Your task to perform on an android device: Show the shopping cart on bestbuy. Search for "sony triple a" on bestbuy, select the first entry, add it to the cart, then select checkout. Image 0: 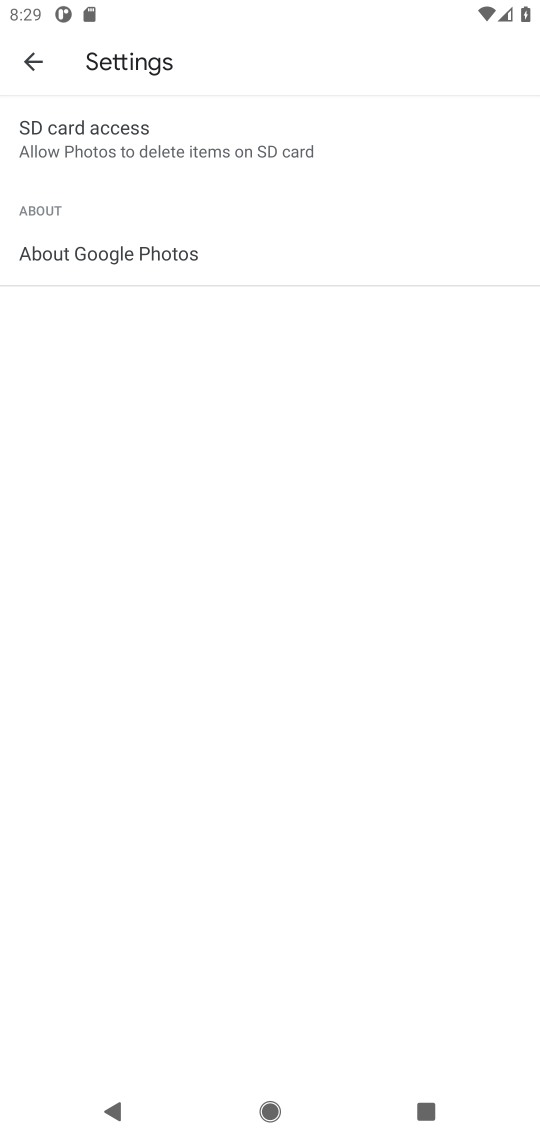
Step 0: press home button
Your task to perform on an android device: Show the shopping cart on bestbuy. Search for "sony triple a" on bestbuy, select the first entry, add it to the cart, then select checkout. Image 1: 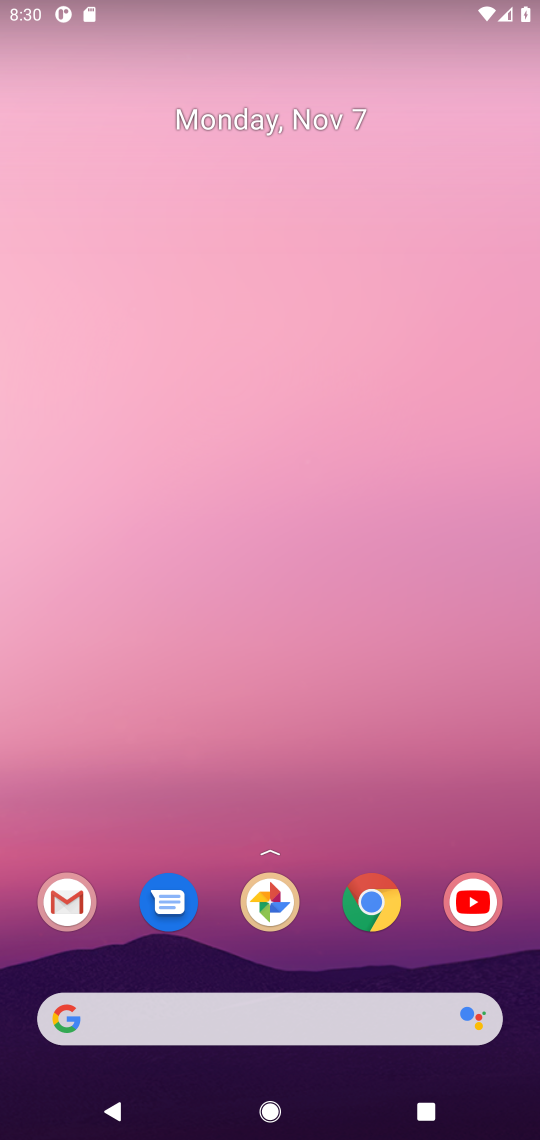
Step 1: click (365, 905)
Your task to perform on an android device: Show the shopping cart on bestbuy. Search for "sony triple a" on bestbuy, select the first entry, add it to the cart, then select checkout. Image 2: 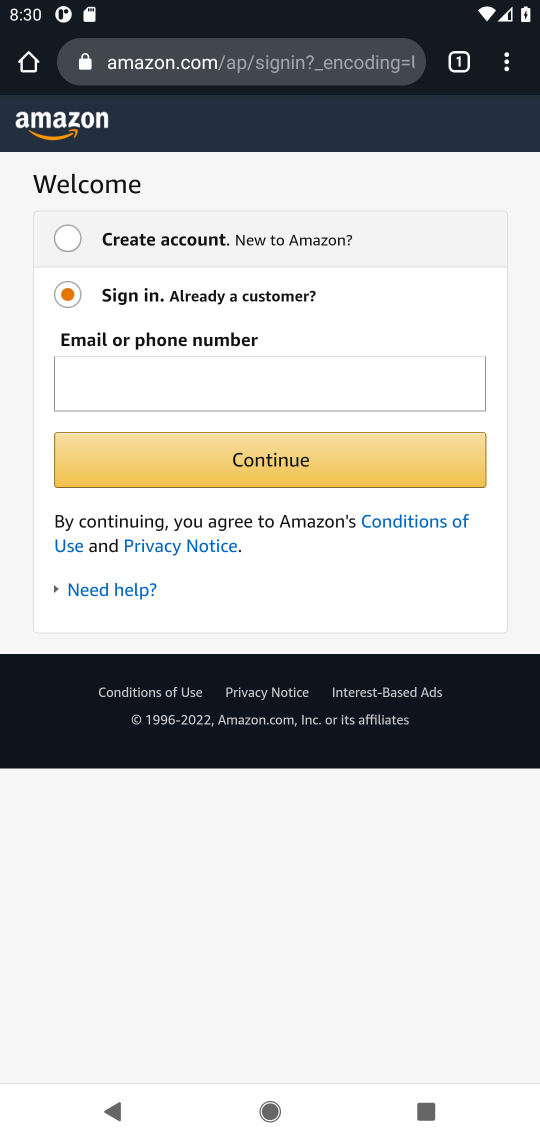
Step 2: click (184, 68)
Your task to perform on an android device: Show the shopping cart on bestbuy. Search for "sony triple a" on bestbuy, select the first entry, add it to the cart, then select checkout. Image 3: 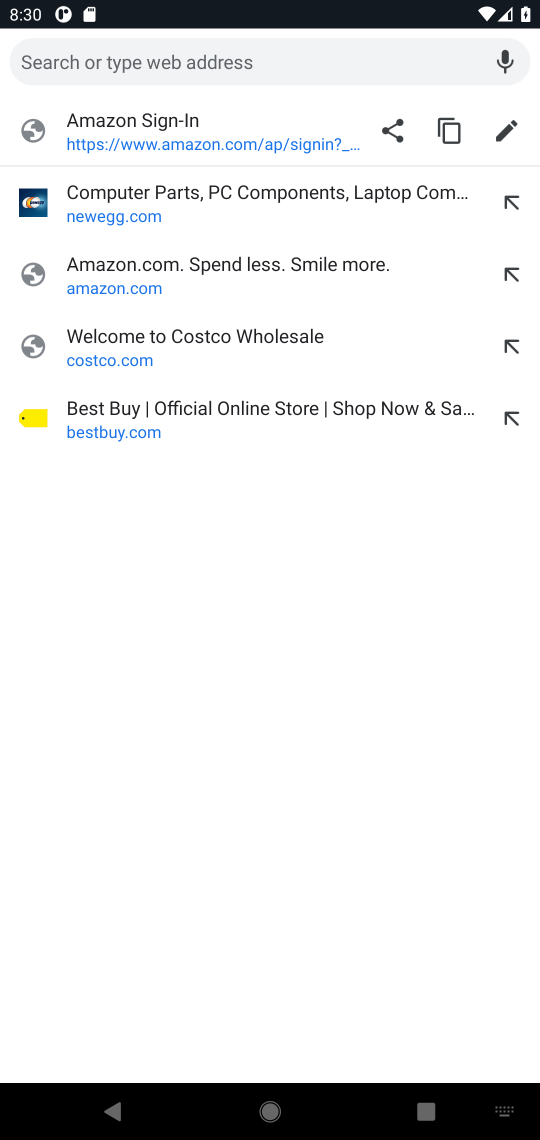
Step 3: click (101, 429)
Your task to perform on an android device: Show the shopping cart on bestbuy. Search for "sony triple a" on bestbuy, select the first entry, add it to the cart, then select checkout. Image 4: 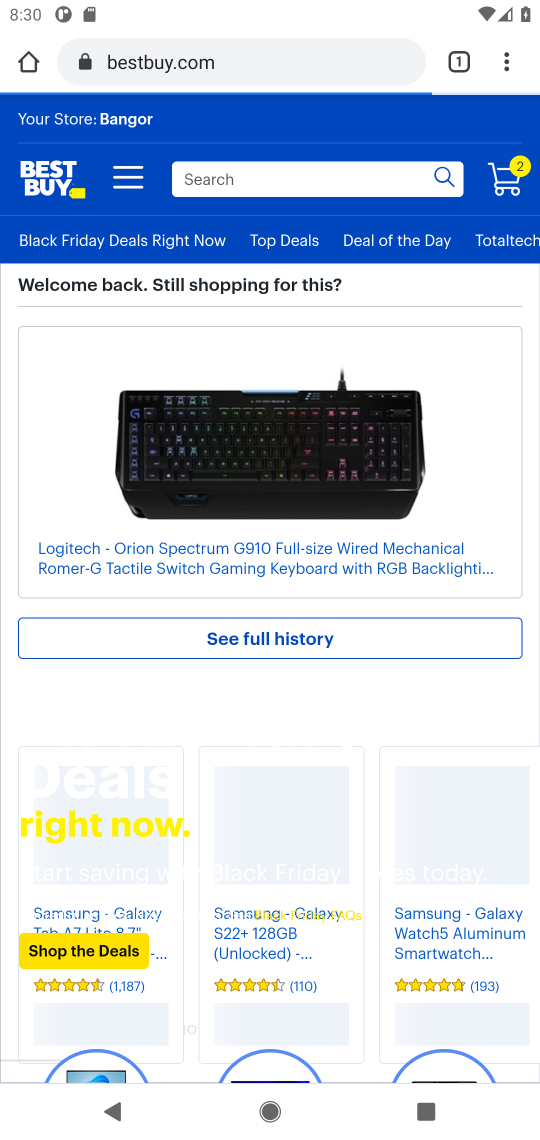
Step 4: click (513, 184)
Your task to perform on an android device: Show the shopping cart on bestbuy. Search for "sony triple a" on bestbuy, select the first entry, add it to the cart, then select checkout. Image 5: 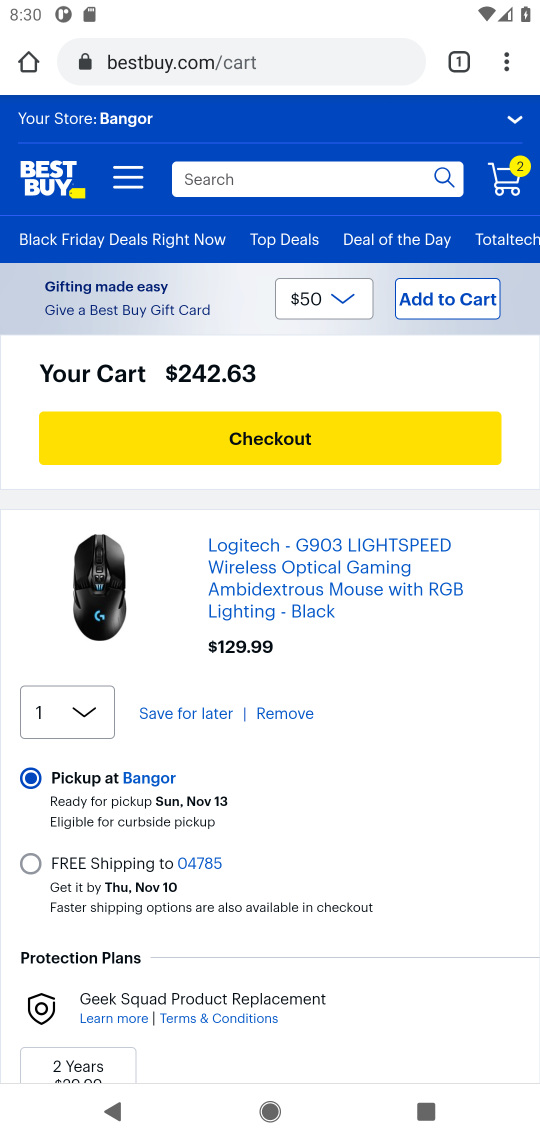
Step 5: click (232, 188)
Your task to perform on an android device: Show the shopping cart on bestbuy. Search for "sony triple a" on bestbuy, select the first entry, add it to the cart, then select checkout. Image 6: 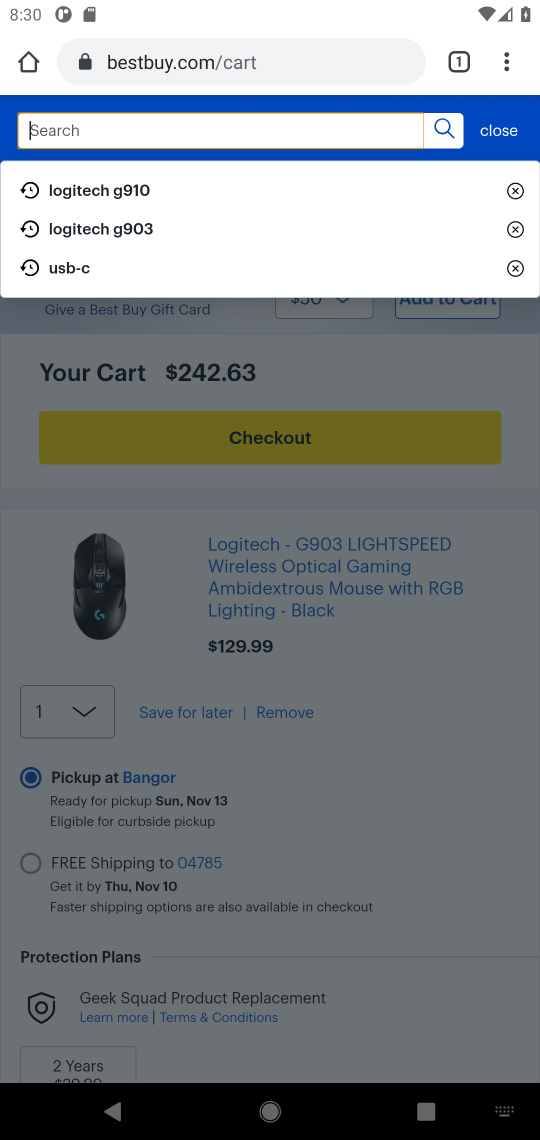
Step 6: type "sony triple a"
Your task to perform on an android device: Show the shopping cart on bestbuy. Search for "sony triple a" on bestbuy, select the first entry, add it to the cart, then select checkout. Image 7: 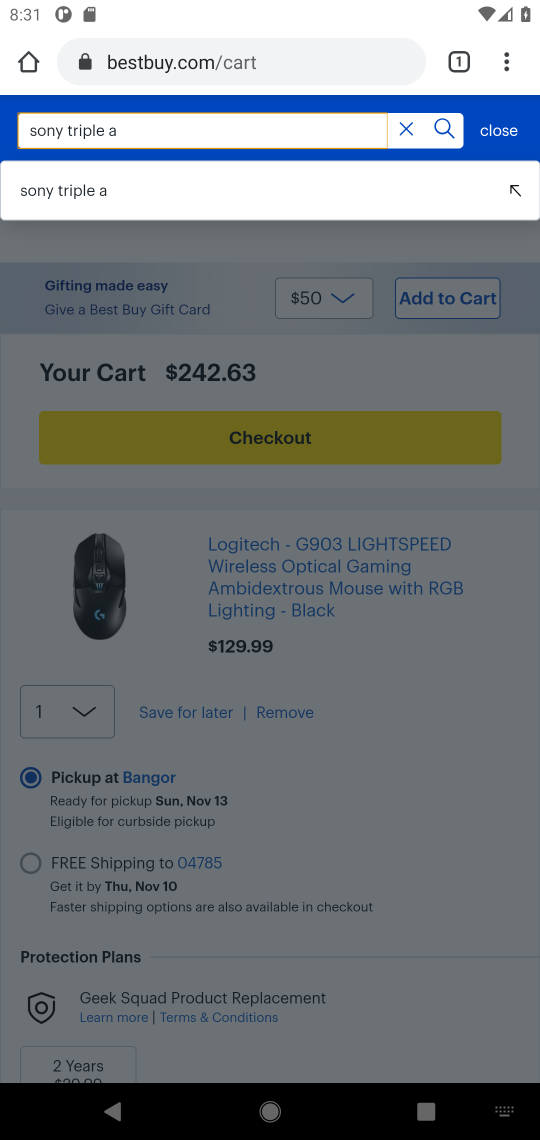
Step 7: click (53, 197)
Your task to perform on an android device: Show the shopping cart on bestbuy. Search for "sony triple a" on bestbuy, select the first entry, add it to the cart, then select checkout. Image 8: 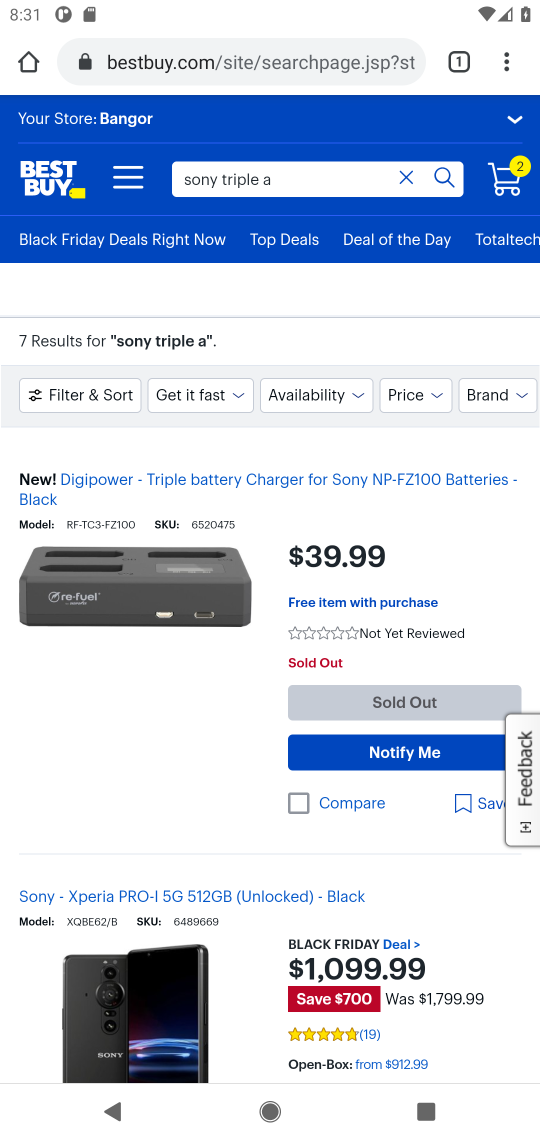
Step 8: task complete